Your task to perform on an android device: read, delete, or share a saved page in the chrome app Image 0: 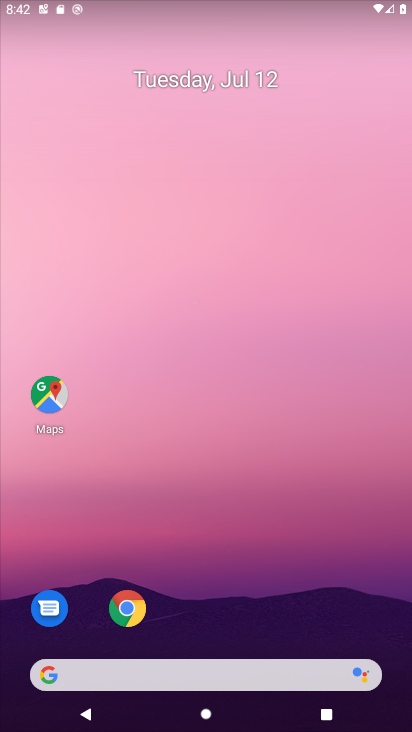
Step 0: click (127, 608)
Your task to perform on an android device: read, delete, or share a saved page in the chrome app Image 1: 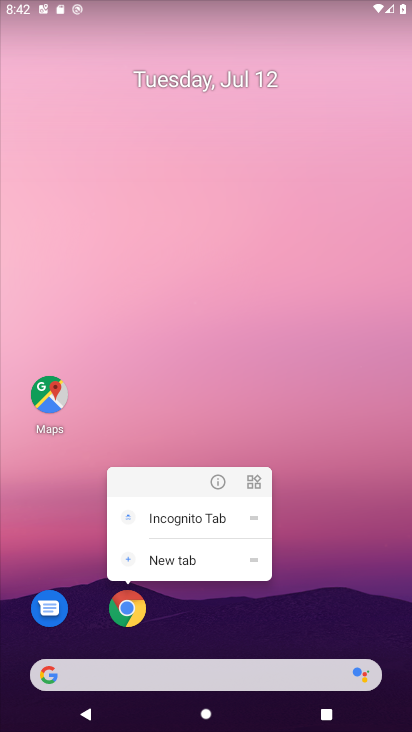
Step 1: click (127, 607)
Your task to perform on an android device: read, delete, or share a saved page in the chrome app Image 2: 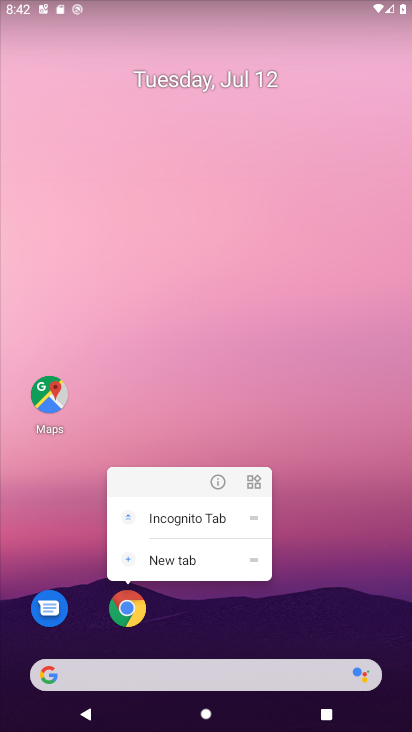
Step 2: click (127, 606)
Your task to perform on an android device: read, delete, or share a saved page in the chrome app Image 3: 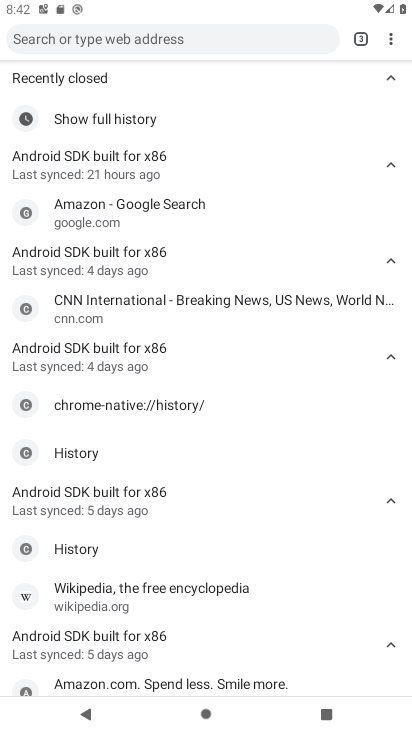
Step 3: drag from (393, 41) to (269, 253)
Your task to perform on an android device: read, delete, or share a saved page in the chrome app Image 4: 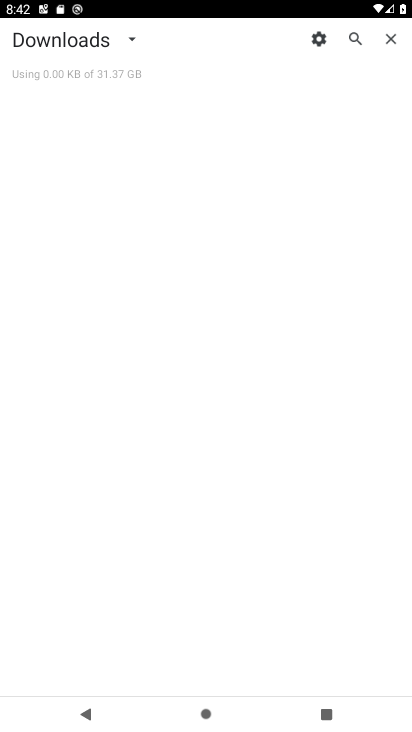
Step 4: click (128, 37)
Your task to perform on an android device: read, delete, or share a saved page in the chrome app Image 5: 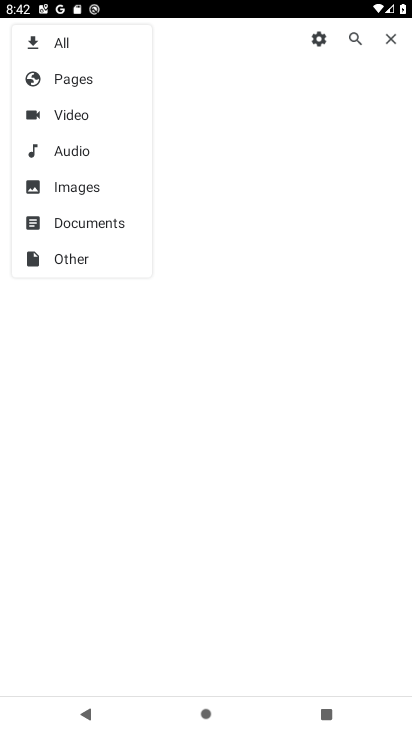
Step 5: click (80, 80)
Your task to perform on an android device: read, delete, or share a saved page in the chrome app Image 6: 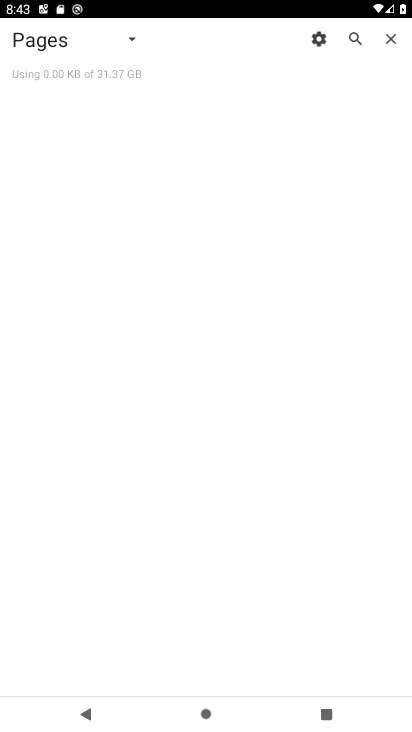
Step 6: task complete